Your task to perform on an android device: Go to Google maps Image 0: 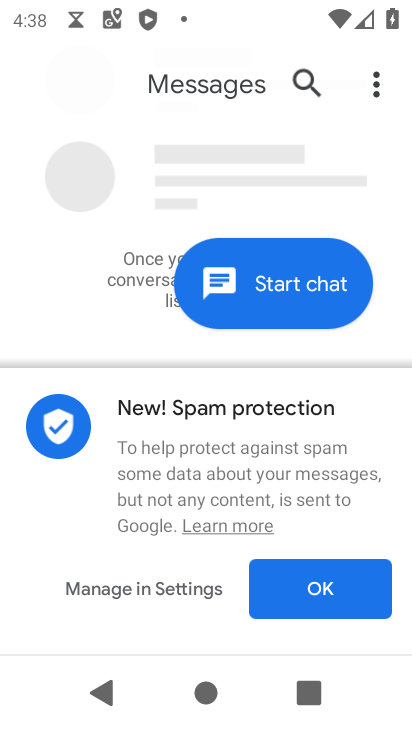
Step 0: press home button
Your task to perform on an android device: Go to Google maps Image 1: 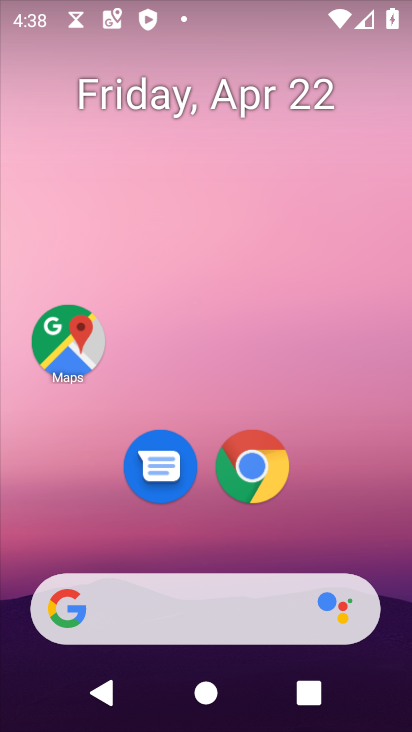
Step 1: click (67, 351)
Your task to perform on an android device: Go to Google maps Image 2: 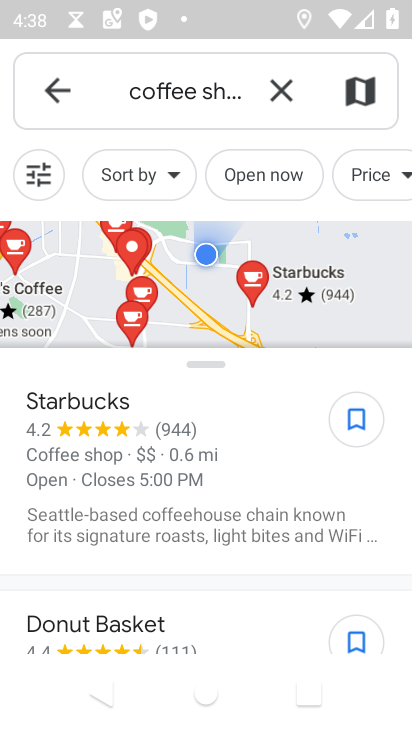
Step 2: task complete